Your task to perform on an android device: Check the news Image 0: 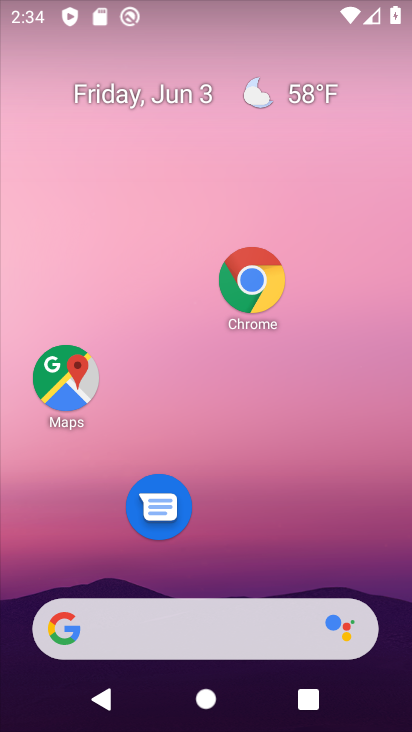
Step 0: drag from (240, 384) to (211, 67)
Your task to perform on an android device: Check the news Image 1: 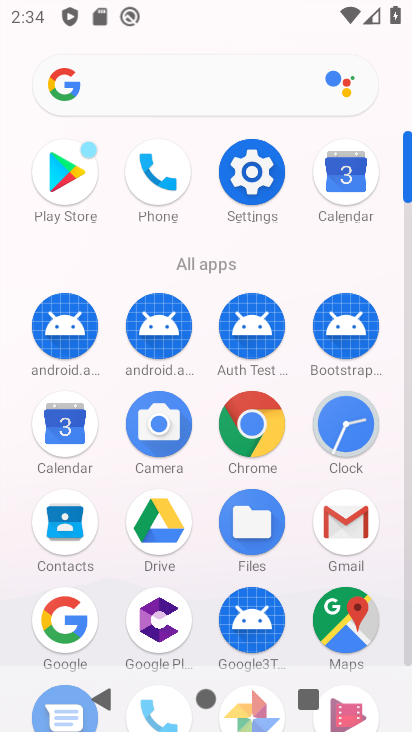
Step 1: click (66, 620)
Your task to perform on an android device: Check the news Image 2: 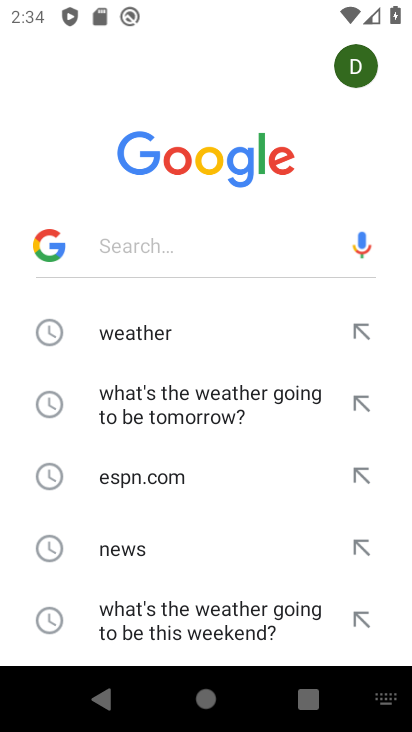
Step 2: click (159, 543)
Your task to perform on an android device: Check the news Image 3: 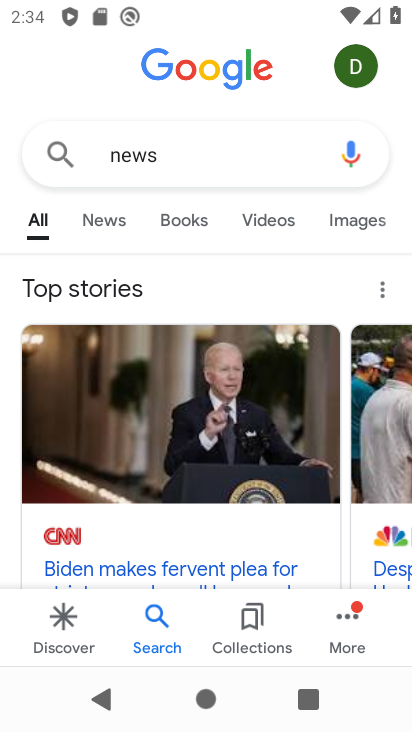
Step 3: task complete